Your task to perform on an android device: open app "Cash App" Image 0: 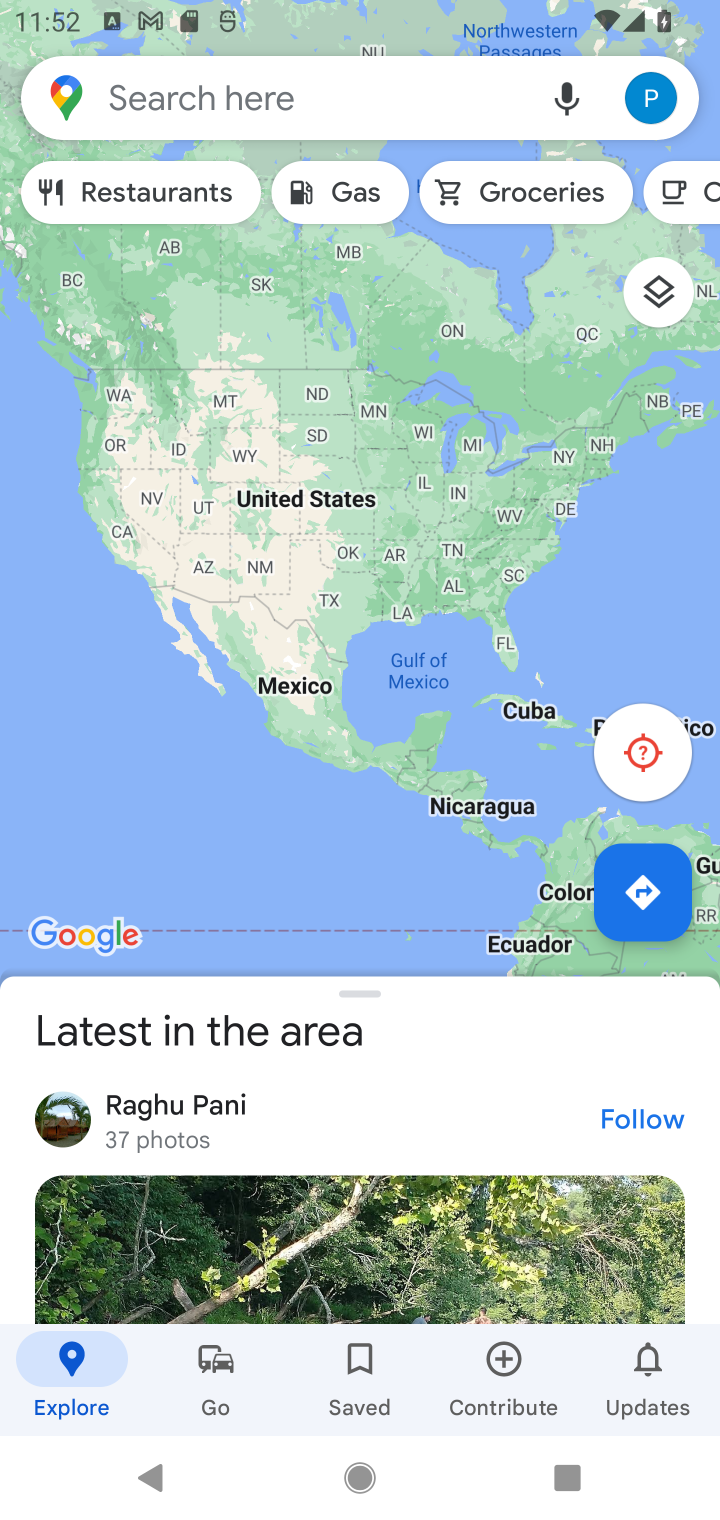
Step 0: press home button
Your task to perform on an android device: open app "Cash App" Image 1: 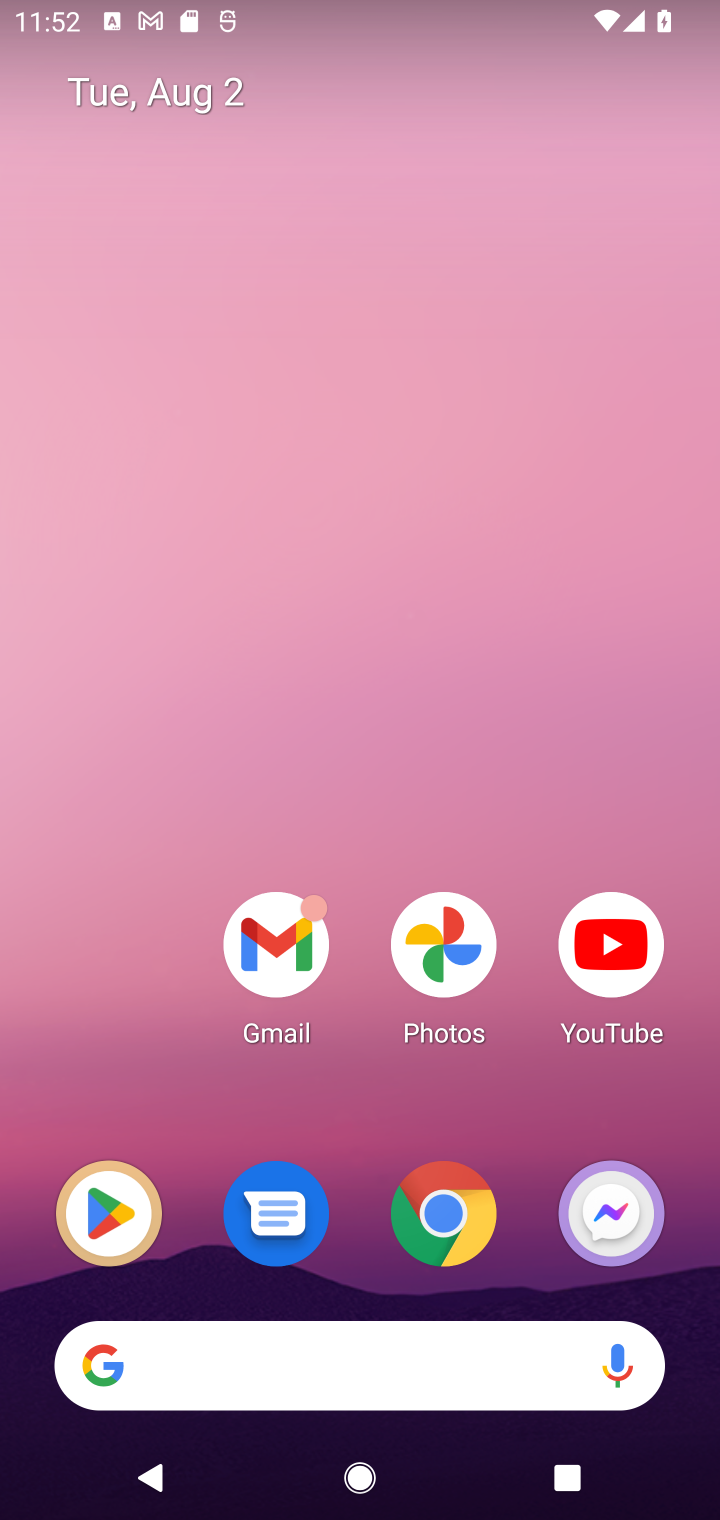
Step 1: click (102, 1232)
Your task to perform on an android device: open app "Cash App" Image 2: 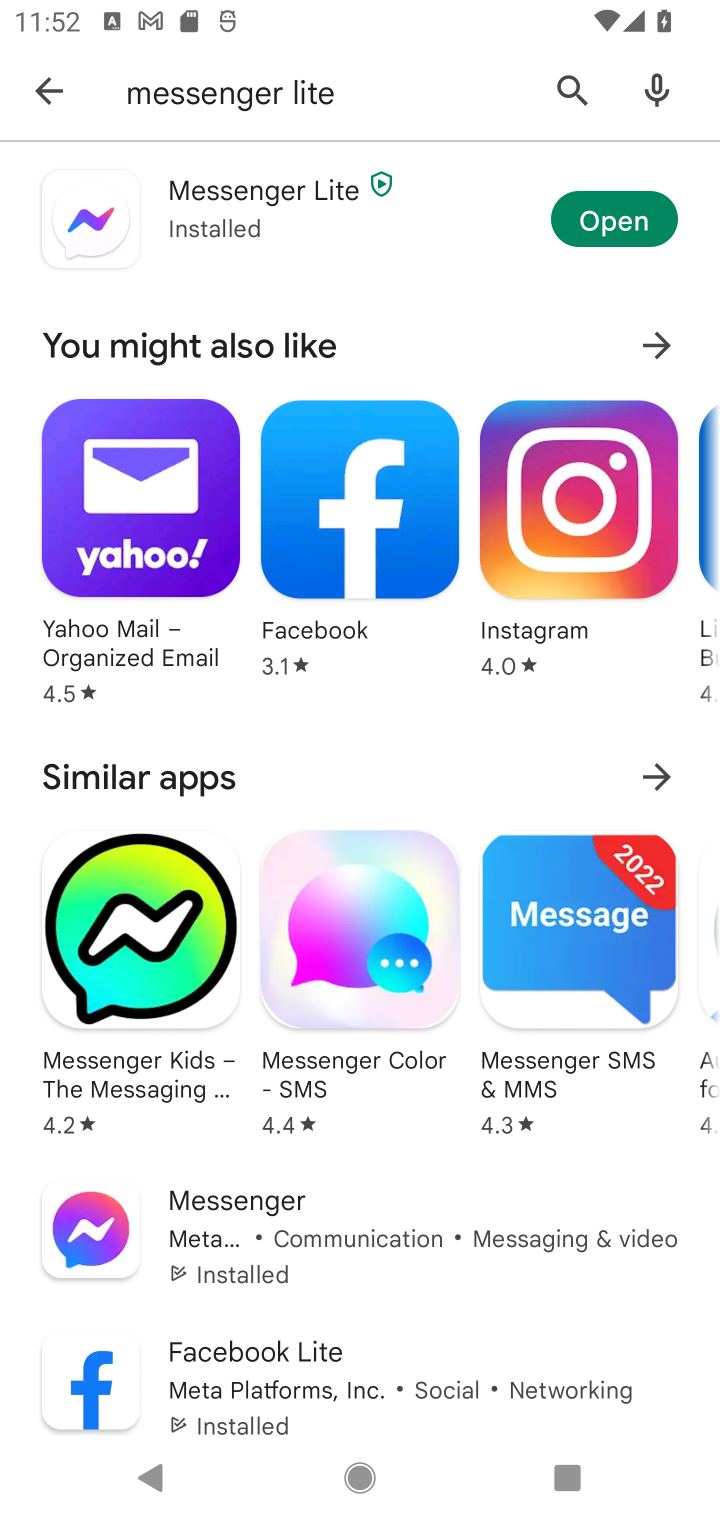
Step 2: click (42, 110)
Your task to perform on an android device: open app "Cash App" Image 3: 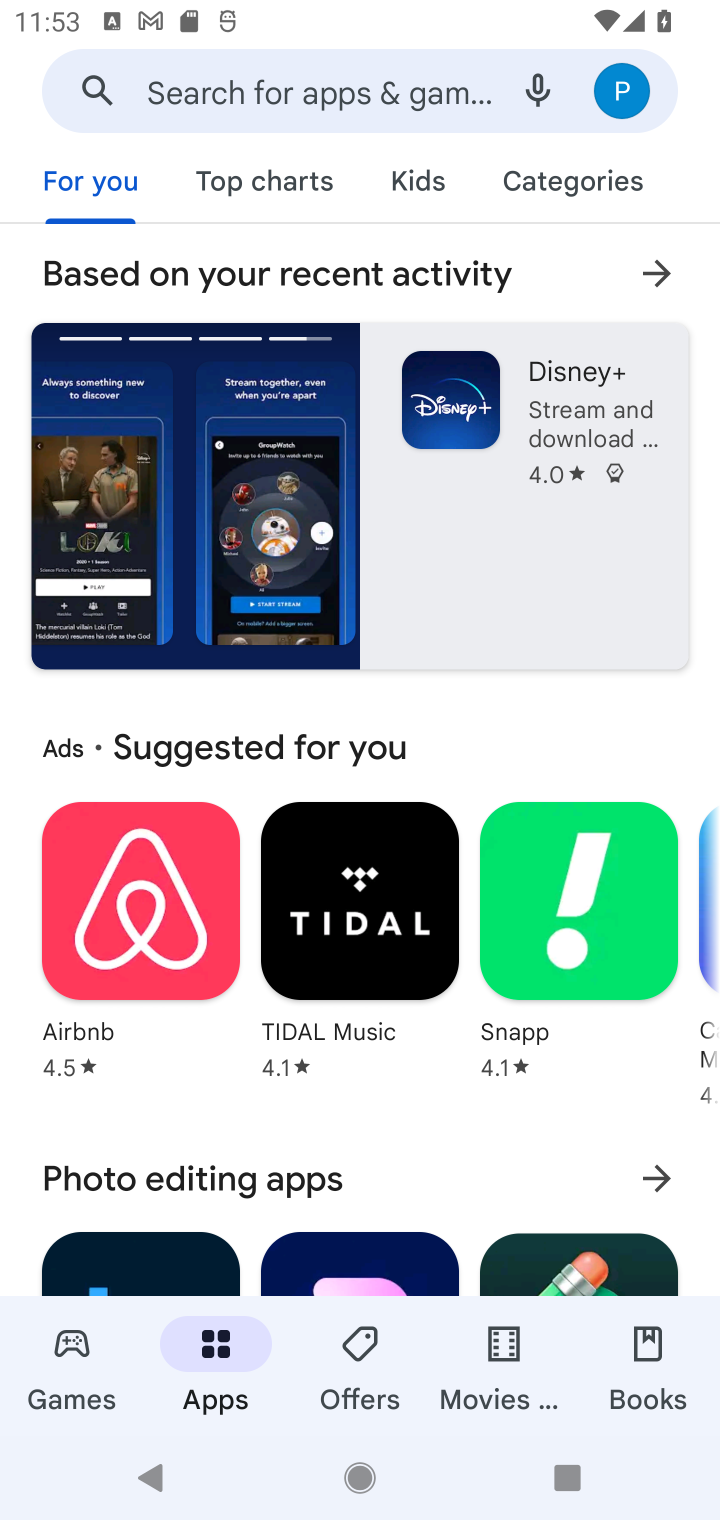
Step 3: click (312, 121)
Your task to perform on an android device: open app "Cash App" Image 4: 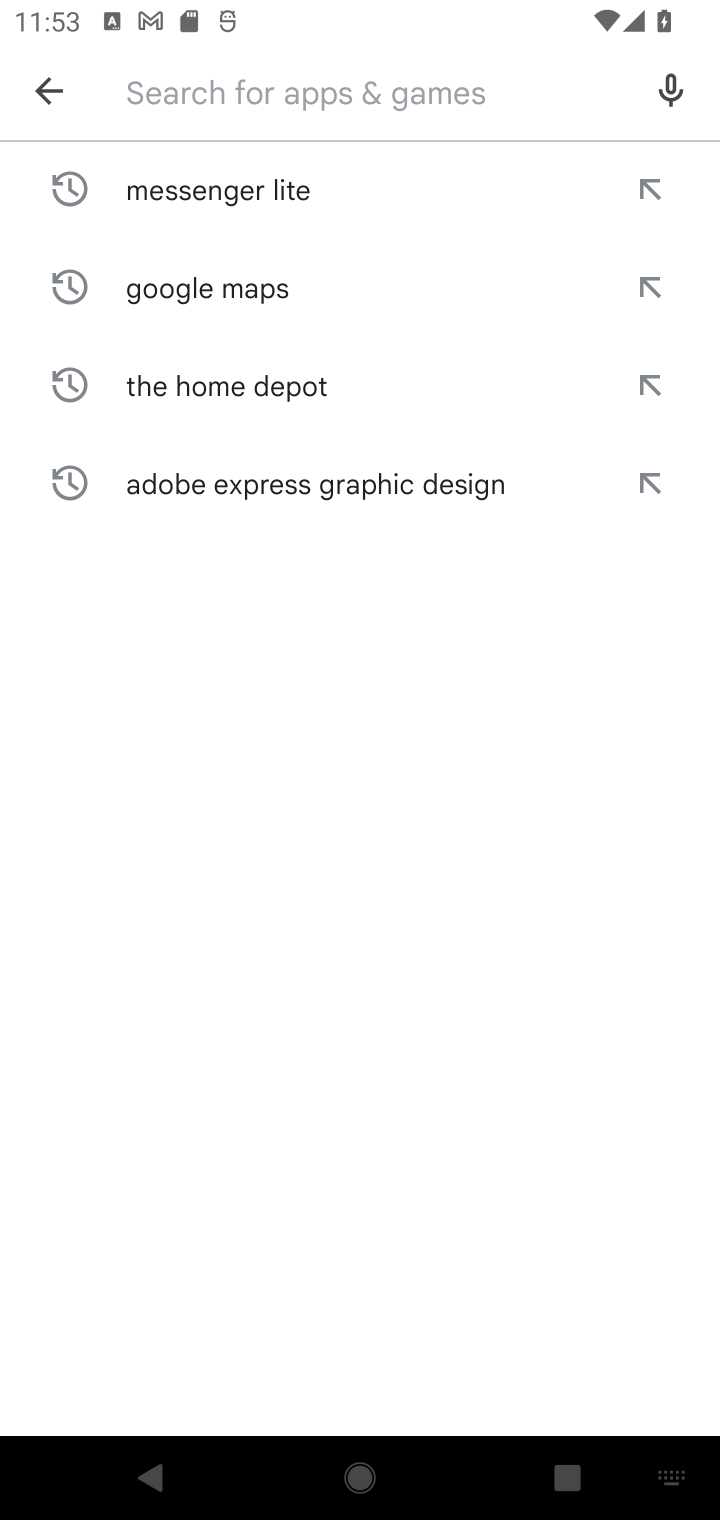
Step 4: type "Cash App"
Your task to perform on an android device: open app "Cash App" Image 5: 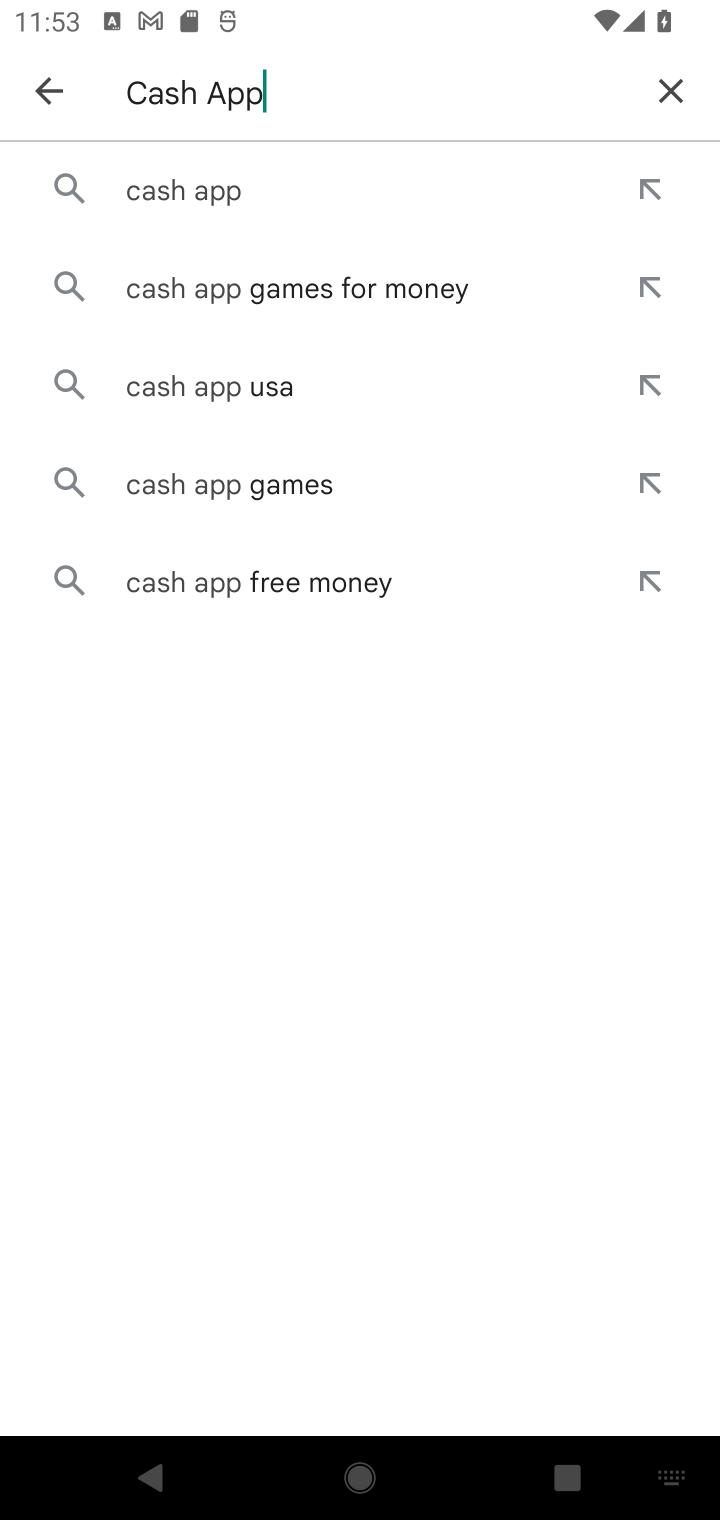
Step 5: click (189, 207)
Your task to perform on an android device: open app "Cash App" Image 6: 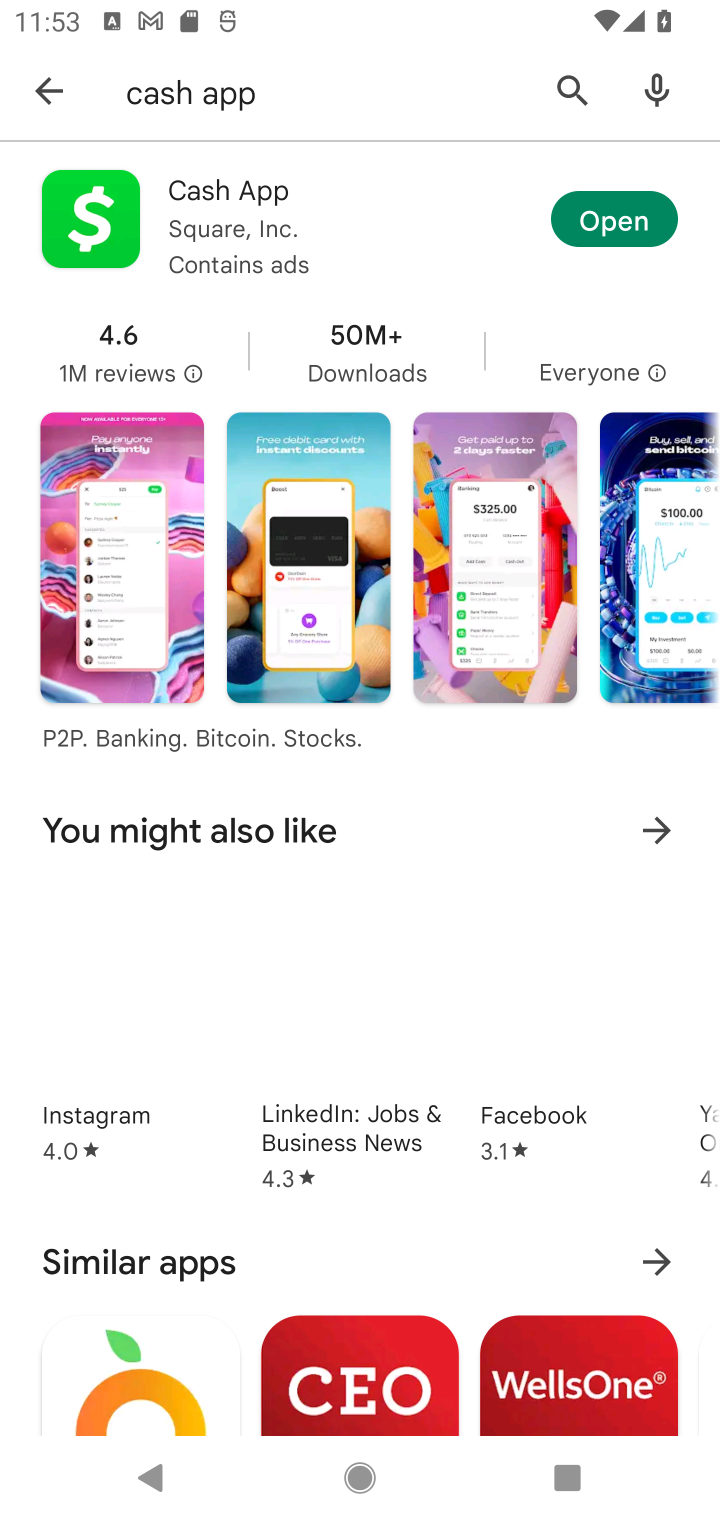
Step 6: click (597, 231)
Your task to perform on an android device: open app "Cash App" Image 7: 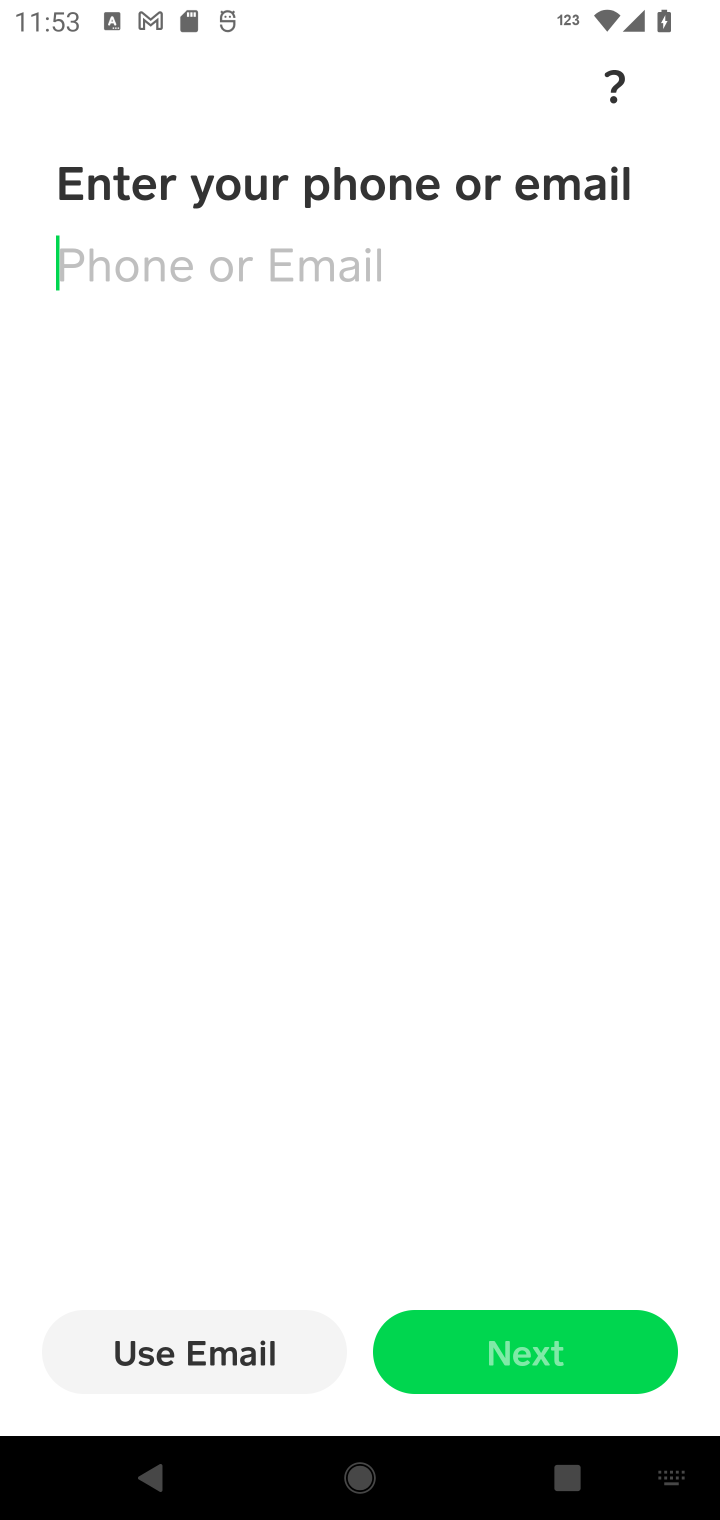
Step 7: task complete